Your task to perform on an android device: turn off notifications settings in the gmail app Image 0: 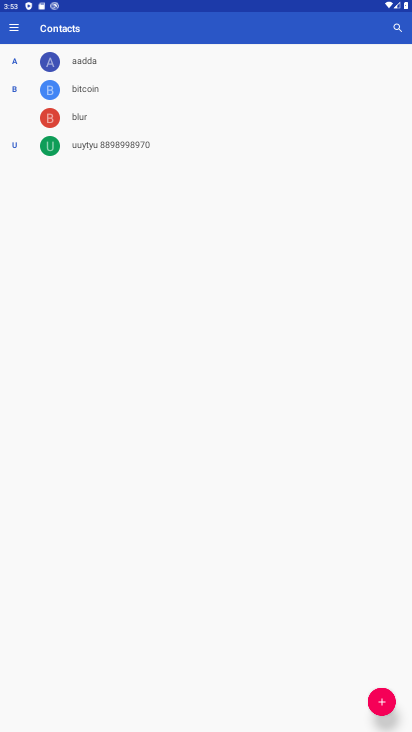
Step 0: press home button
Your task to perform on an android device: turn off notifications settings in the gmail app Image 1: 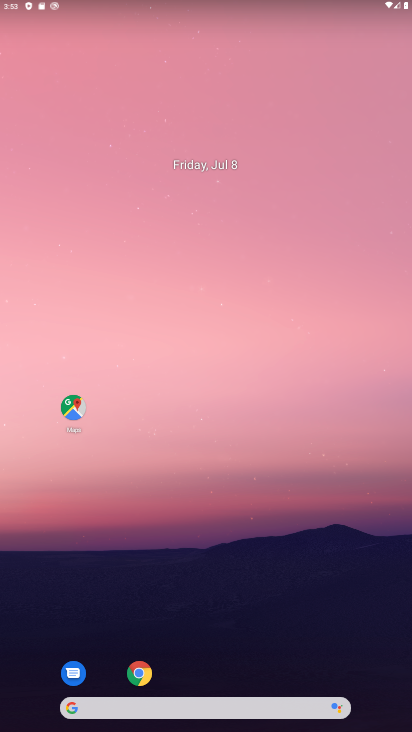
Step 1: drag from (238, 634) to (297, 174)
Your task to perform on an android device: turn off notifications settings in the gmail app Image 2: 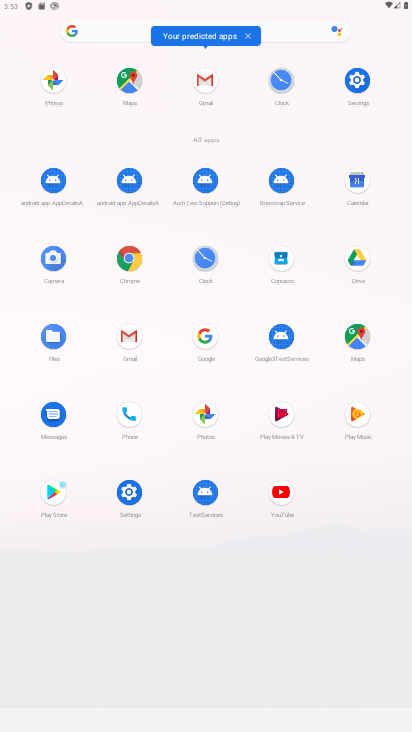
Step 2: click (129, 315)
Your task to perform on an android device: turn off notifications settings in the gmail app Image 3: 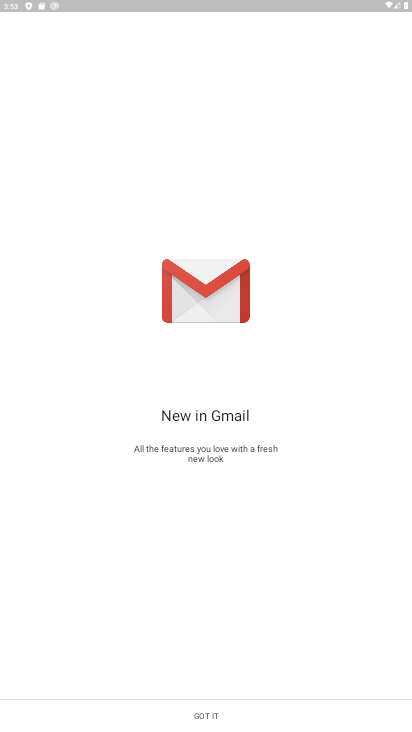
Step 3: click (171, 731)
Your task to perform on an android device: turn off notifications settings in the gmail app Image 4: 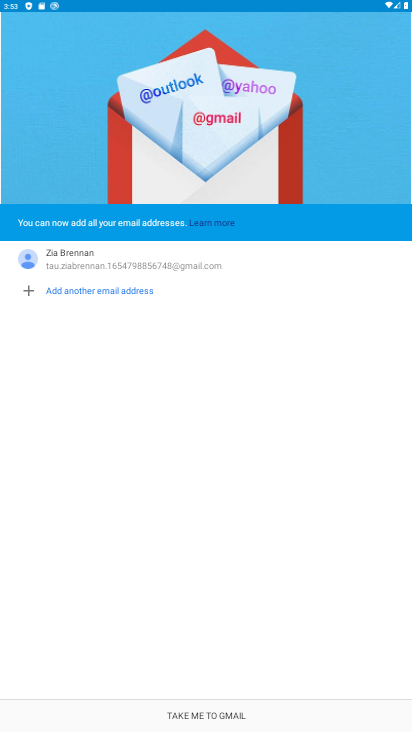
Step 4: click (189, 715)
Your task to perform on an android device: turn off notifications settings in the gmail app Image 5: 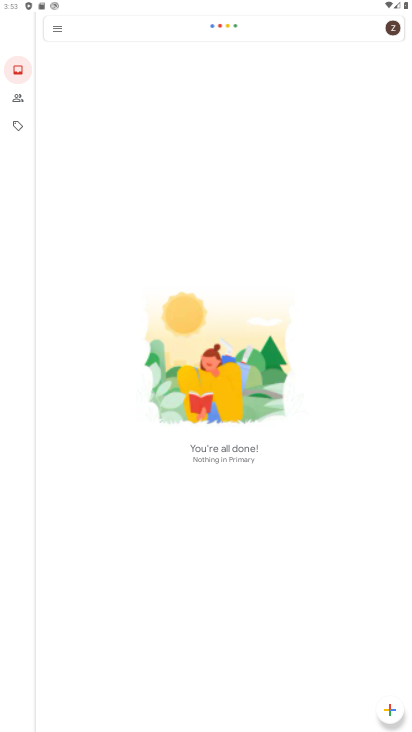
Step 5: click (62, 32)
Your task to perform on an android device: turn off notifications settings in the gmail app Image 6: 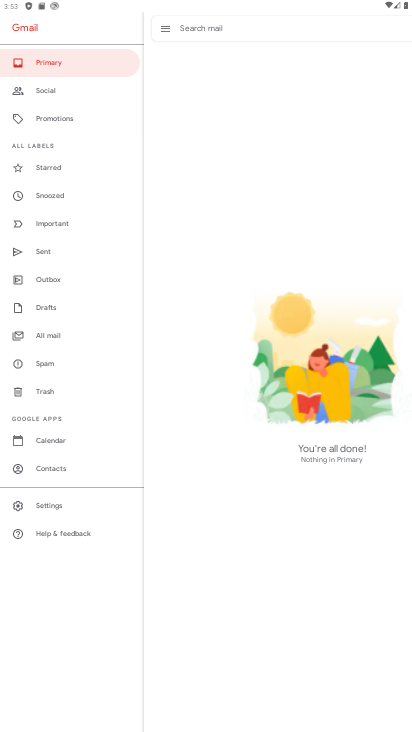
Step 6: click (71, 496)
Your task to perform on an android device: turn off notifications settings in the gmail app Image 7: 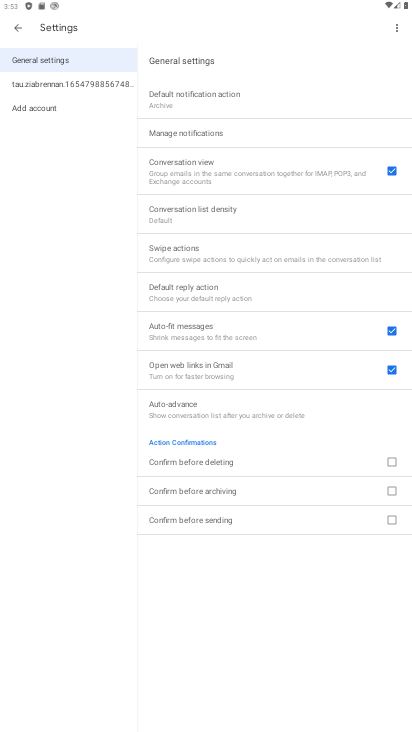
Step 7: click (68, 88)
Your task to perform on an android device: turn off notifications settings in the gmail app Image 8: 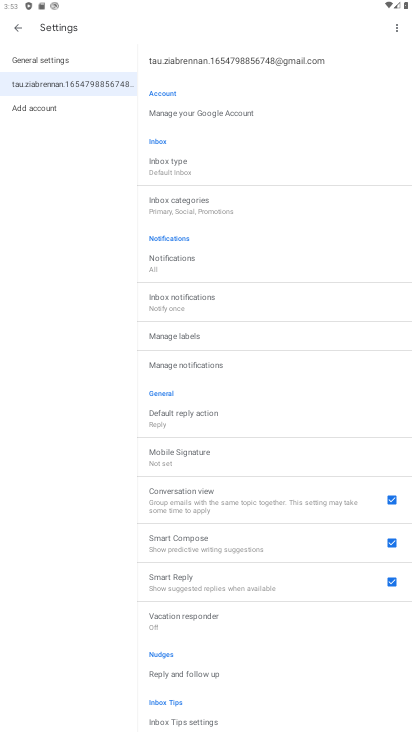
Step 8: click (195, 363)
Your task to perform on an android device: turn off notifications settings in the gmail app Image 9: 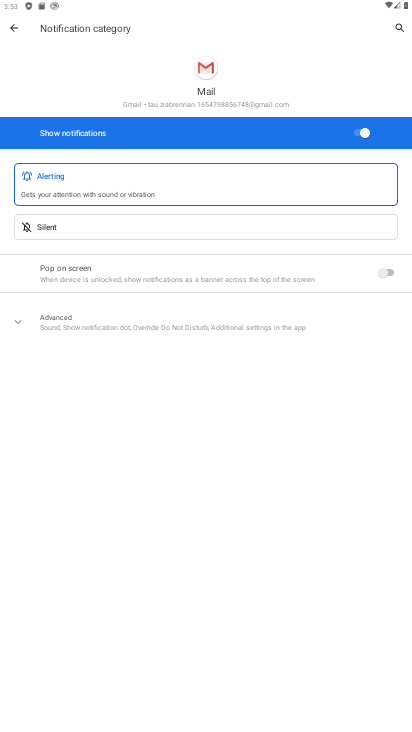
Step 9: click (342, 126)
Your task to perform on an android device: turn off notifications settings in the gmail app Image 10: 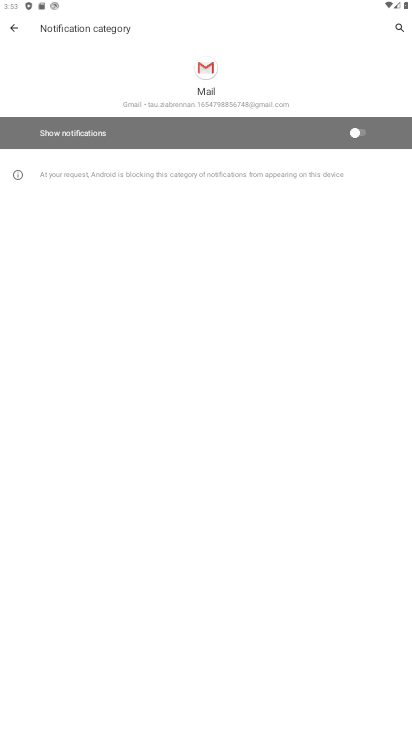
Step 10: task complete